Your task to perform on an android device: Open the map Image 0: 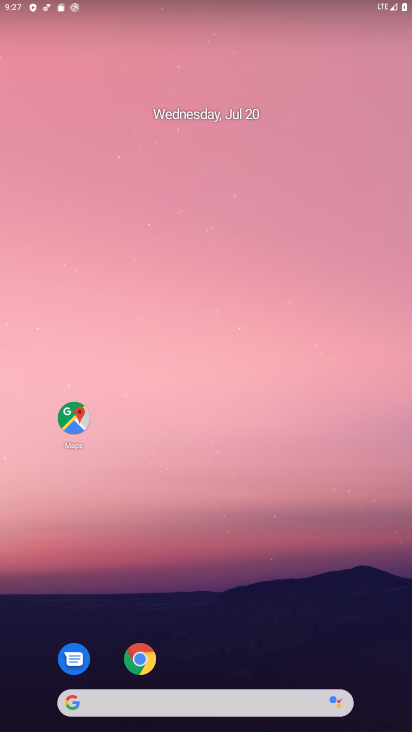
Step 0: click (71, 412)
Your task to perform on an android device: Open the map Image 1: 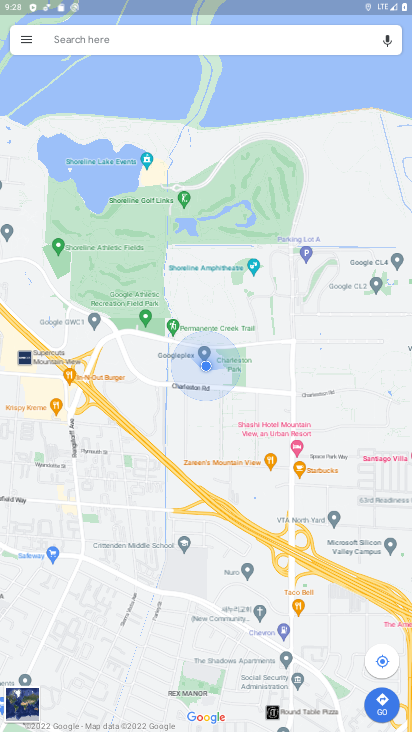
Step 1: task complete